Your task to perform on an android device: What's the weather? Image 0: 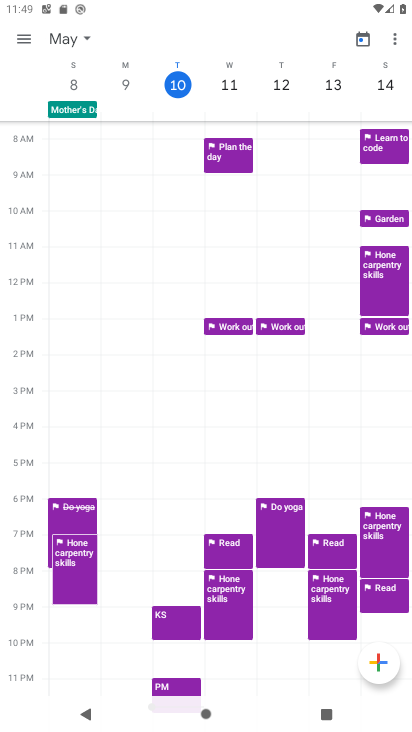
Step 0: press home button
Your task to perform on an android device: What's the weather? Image 1: 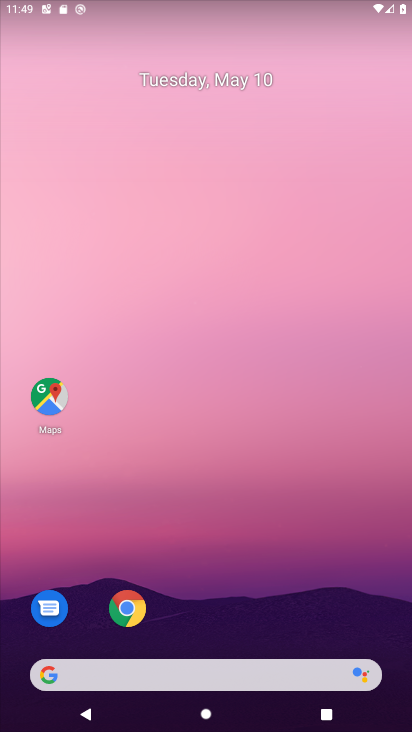
Step 1: drag from (26, 279) to (354, 258)
Your task to perform on an android device: What's the weather? Image 2: 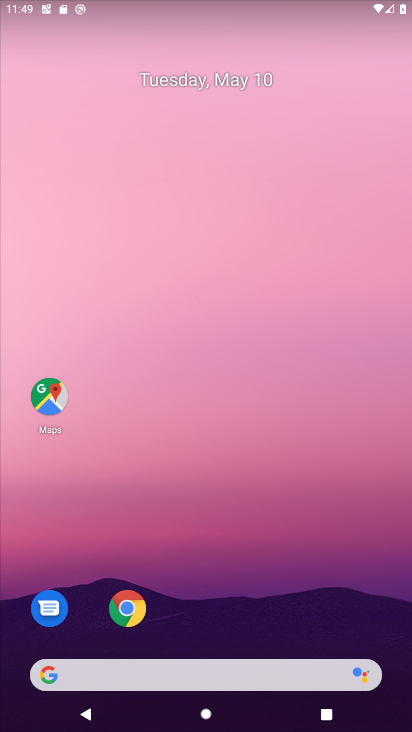
Step 2: drag from (17, 284) to (407, 301)
Your task to perform on an android device: What's the weather? Image 3: 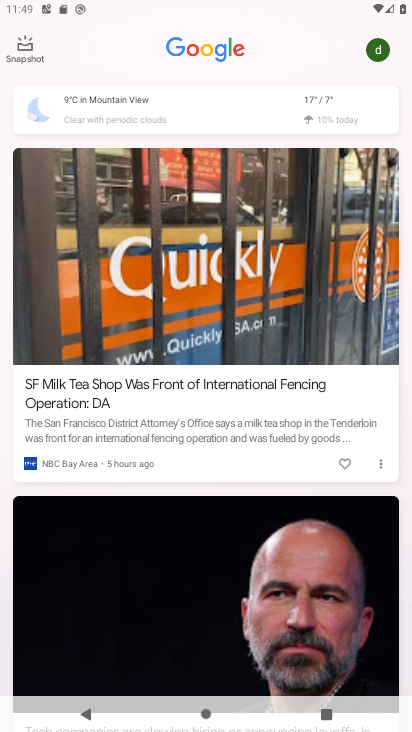
Step 3: click (42, 113)
Your task to perform on an android device: What's the weather? Image 4: 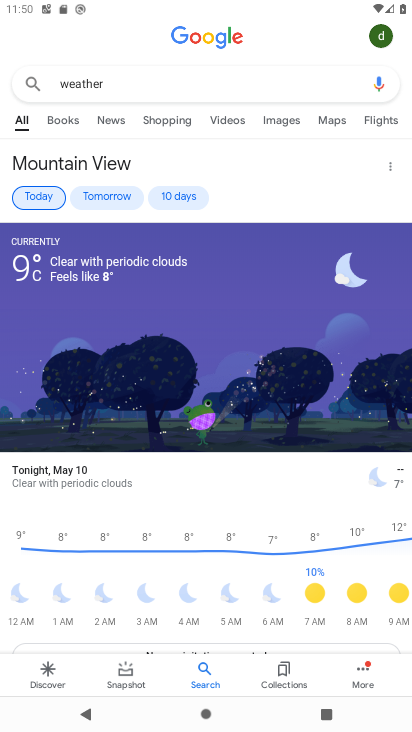
Step 4: task complete